Your task to perform on an android device: Go to Maps Image 0: 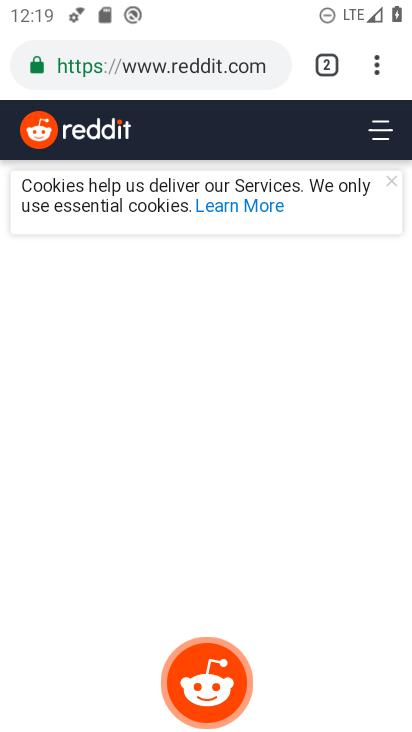
Step 0: press home button
Your task to perform on an android device: Go to Maps Image 1: 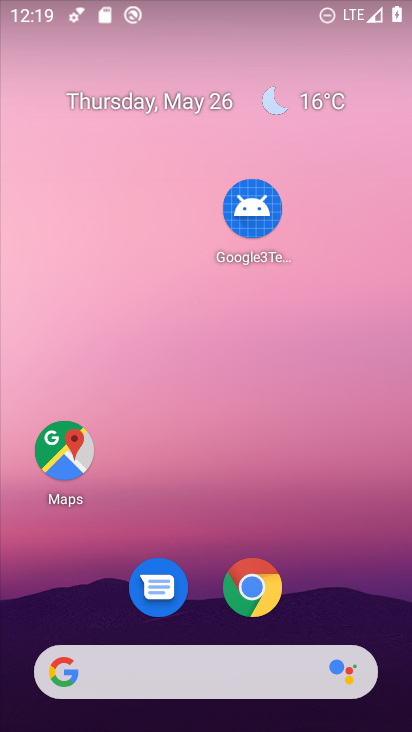
Step 1: click (65, 463)
Your task to perform on an android device: Go to Maps Image 2: 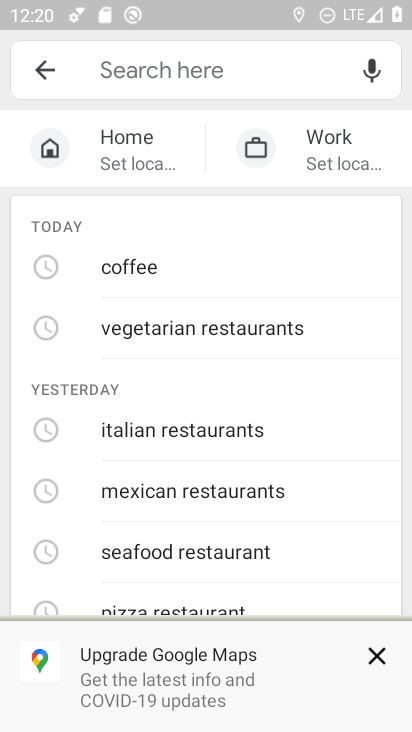
Step 2: task complete